Your task to perform on an android device: snooze an email in the gmail app Image 0: 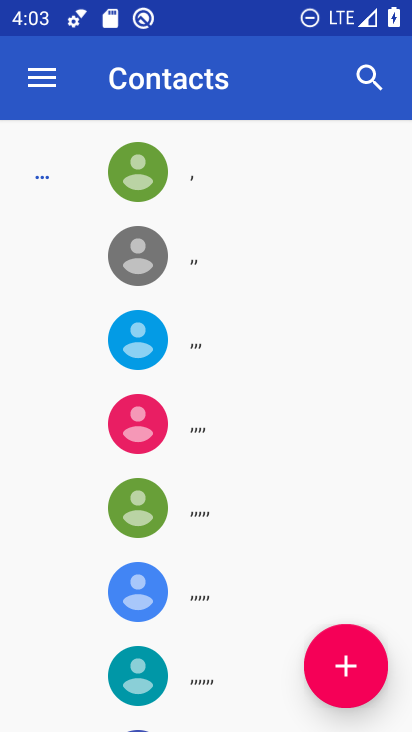
Step 0: press home button
Your task to perform on an android device: snooze an email in the gmail app Image 1: 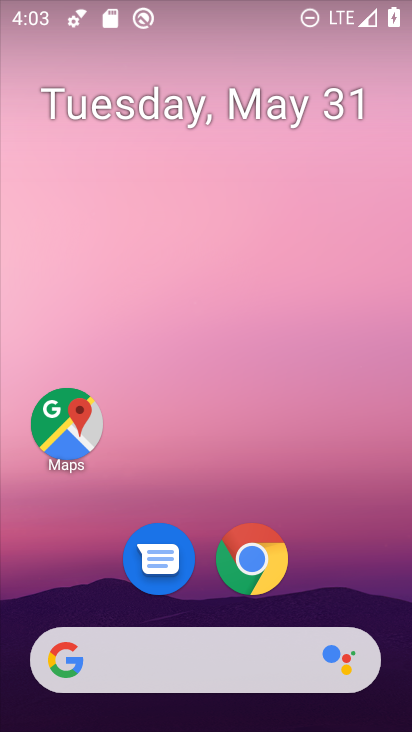
Step 1: drag from (258, 728) to (262, 36)
Your task to perform on an android device: snooze an email in the gmail app Image 2: 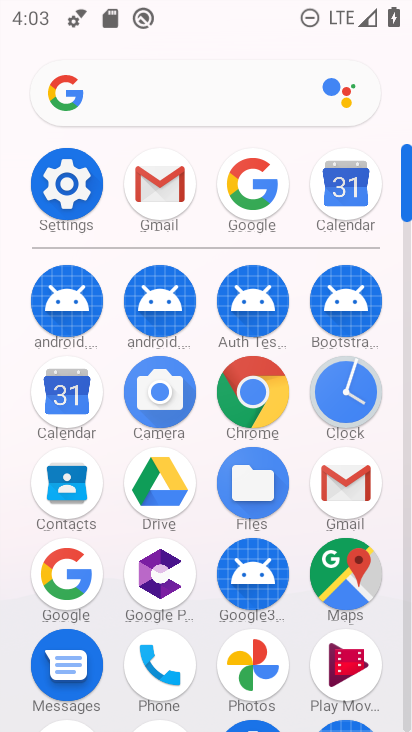
Step 2: click (348, 495)
Your task to perform on an android device: snooze an email in the gmail app Image 3: 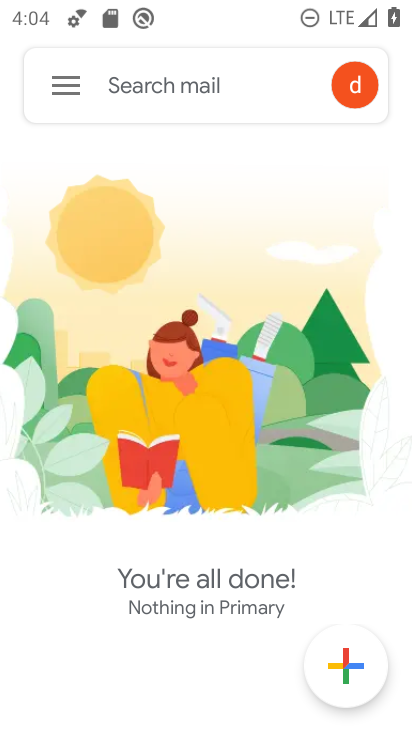
Step 3: click (61, 83)
Your task to perform on an android device: snooze an email in the gmail app Image 4: 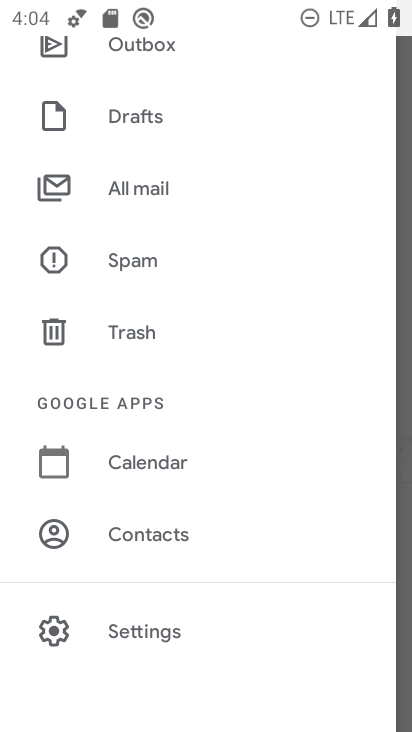
Step 4: drag from (208, 152) to (201, 378)
Your task to perform on an android device: snooze an email in the gmail app Image 5: 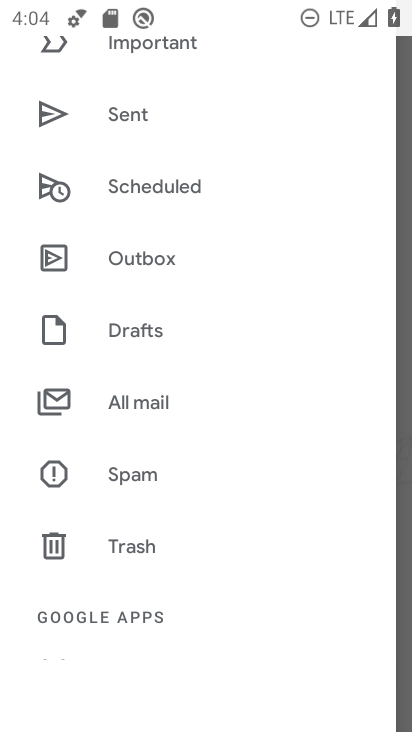
Step 5: drag from (212, 136) to (239, 500)
Your task to perform on an android device: snooze an email in the gmail app Image 6: 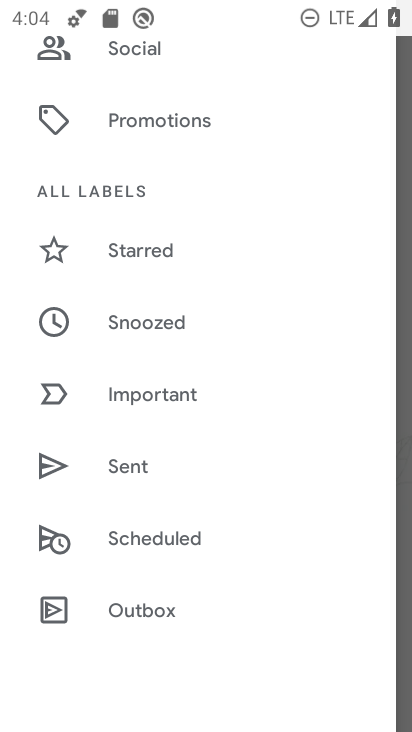
Step 6: drag from (263, 100) to (278, 552)
Your task to perform on an android device: snooze an email in the gmail app Image 7: 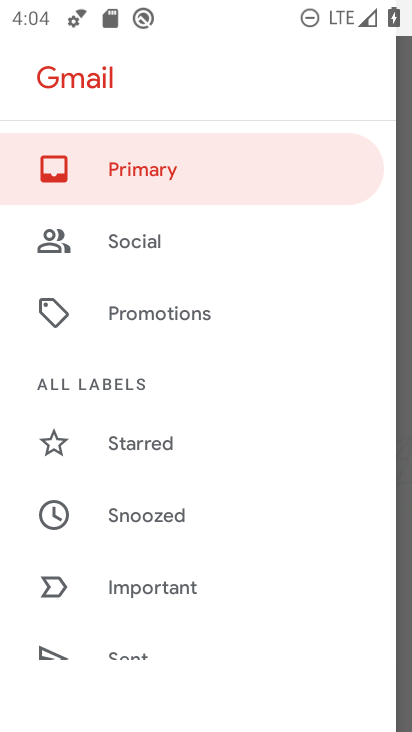
Step 7: click (157, 167)
Your task to perform on an android device: snooze an email in the gmail app Image 8: 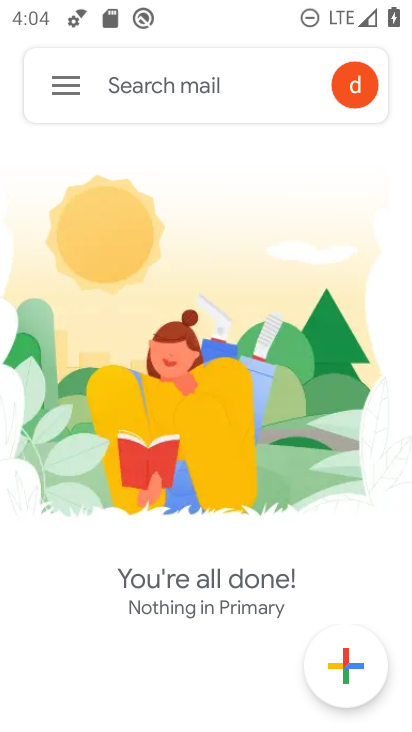
Step 8: task complete